Your task to perform on an android device: Is it going to rain today? Image 0: 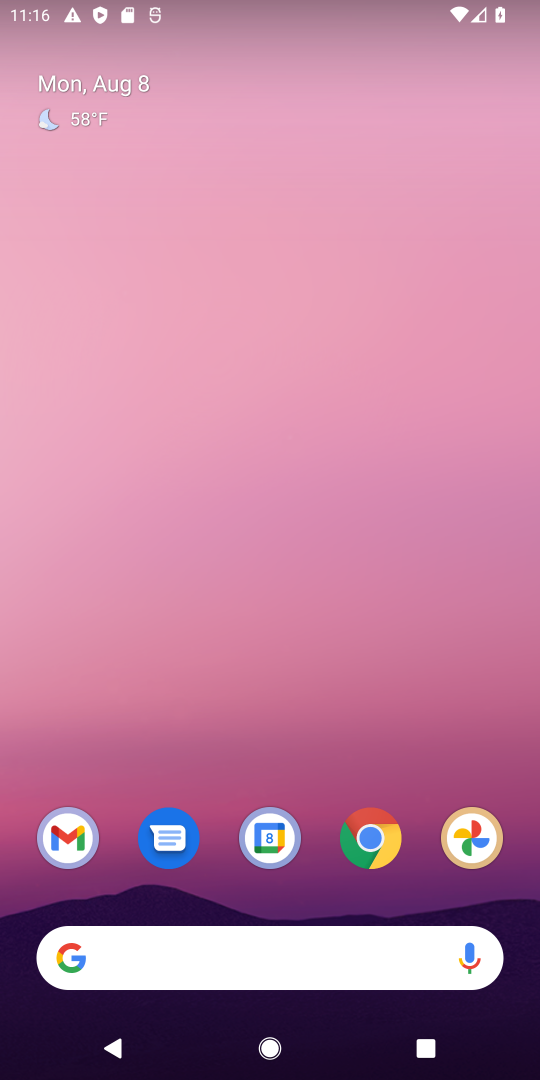
Step 0: press home button
Your task to perform on an android device: Is it going to rain today? Image 1: 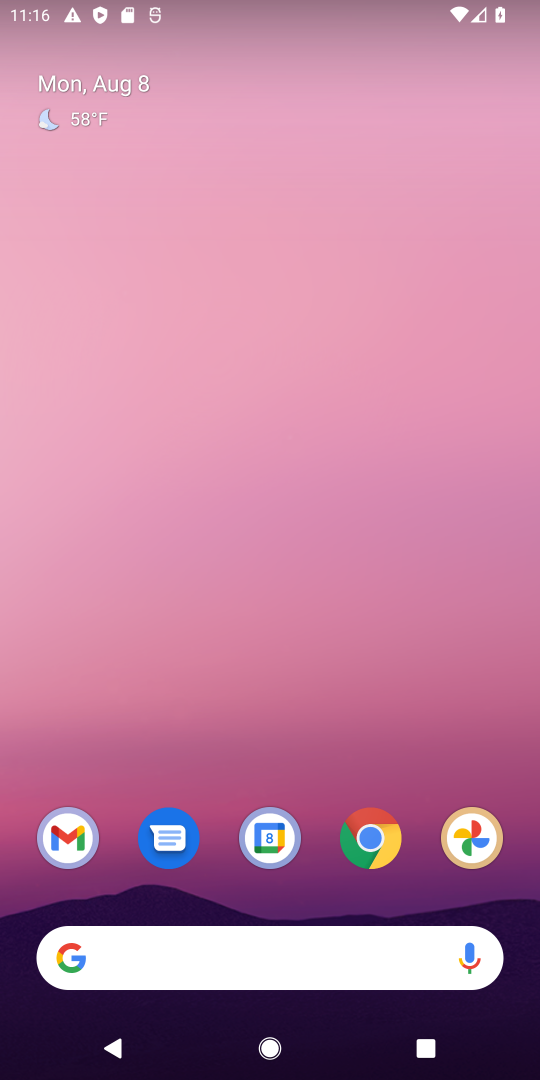
Step 1: click (59, 957)
Your task to perform on an android device: Is it going to rain today? Image 2: 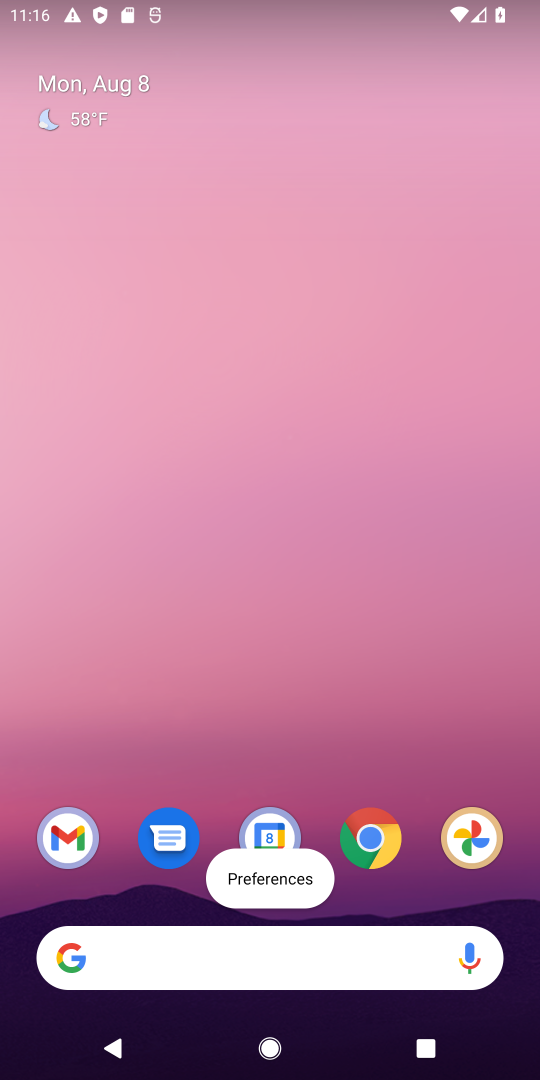
Step 2: click (60, 967)
Your task to perform on an android device: Is it going to rain today? Image 3: 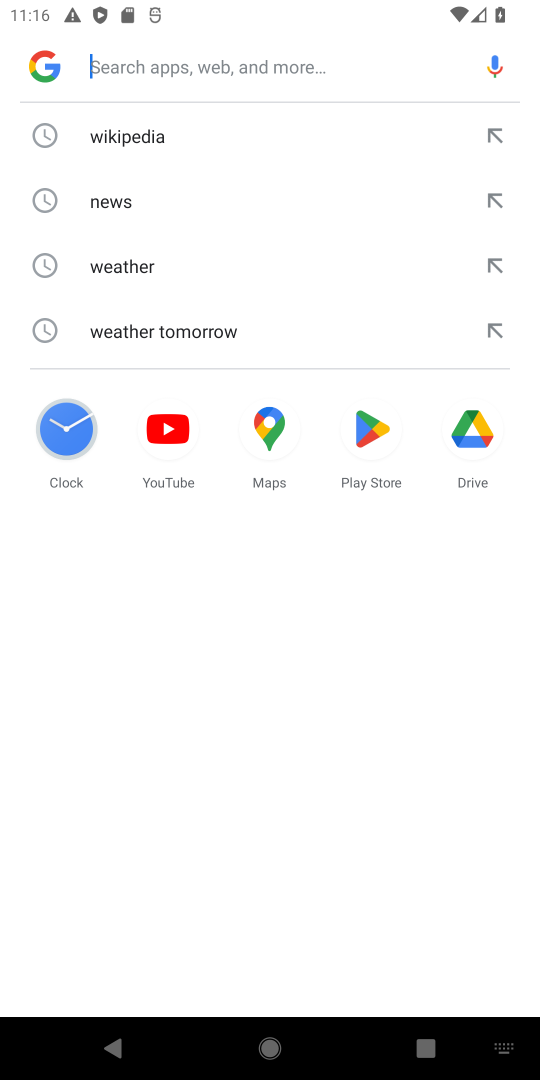
Step 3: press enter
Your task to perform on an android device: Is it going to rain today? Image 4: 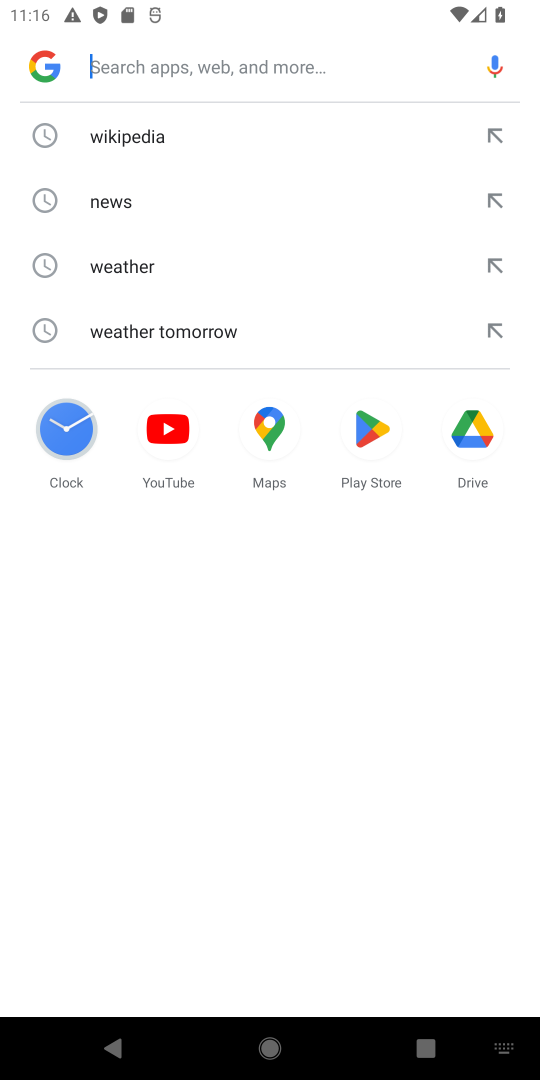
Step 4: type "rain today?"
Your task to perform on an android device: Is it going to rain today? Image 5: 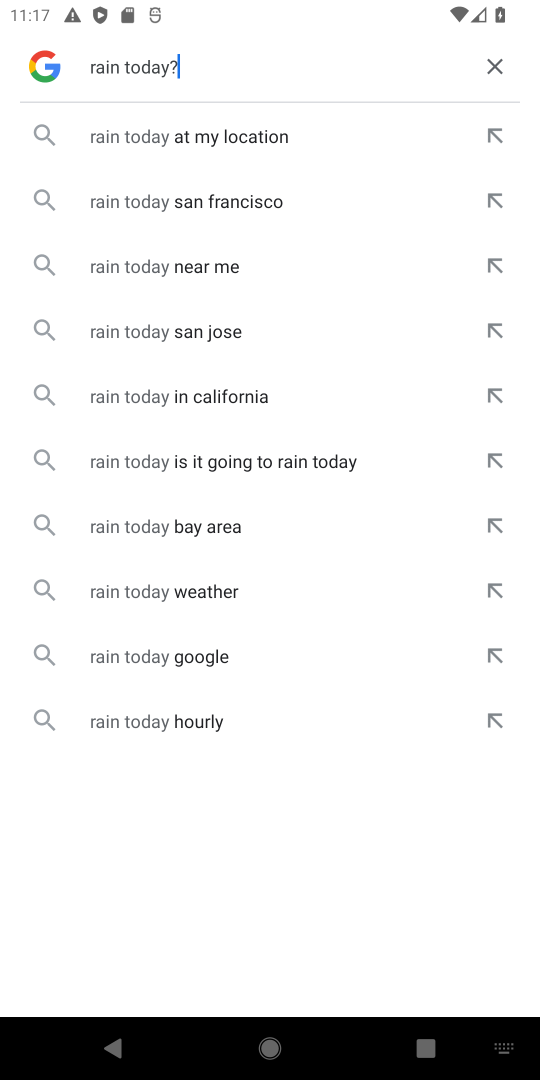
Step 5: press enter
Your task to perform on an android device: Is it going to rain today? Image 6: 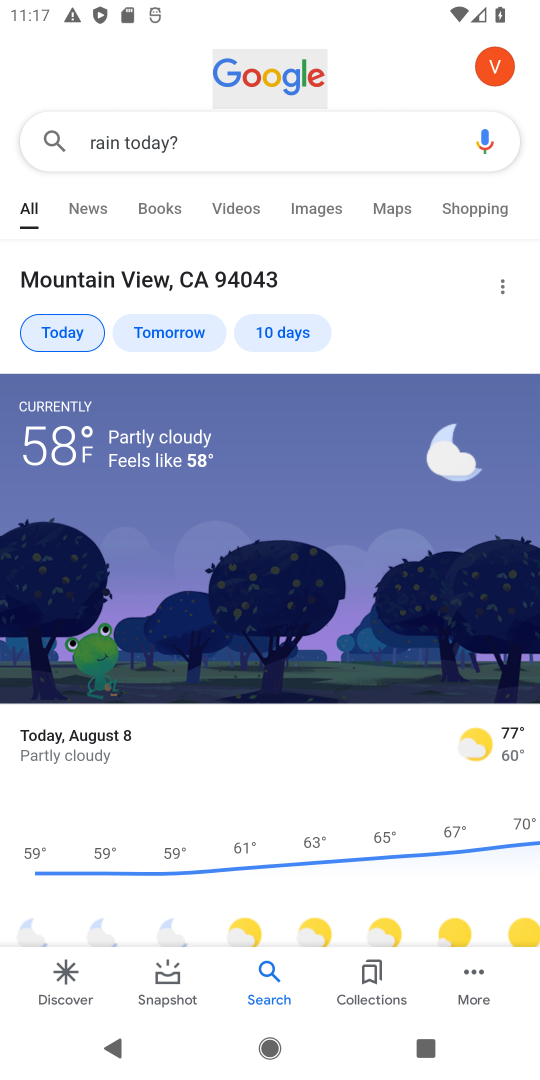
Step 6: task complete